Your task to perform on an android device: Open Youtube and go to the subscriptions tab Image 0: 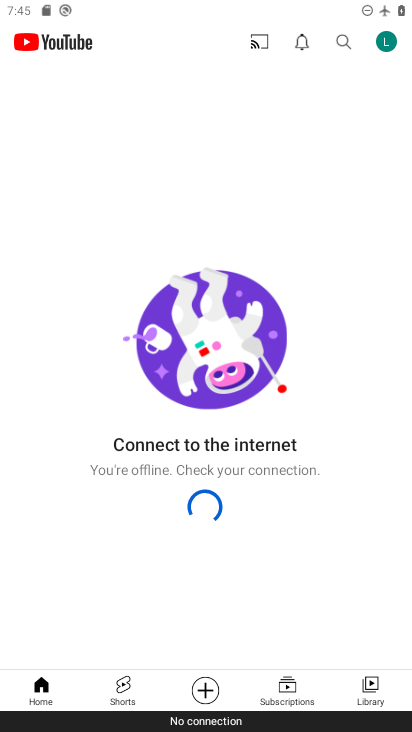
Step 0: click (288, 684)
Your task to perform on an android device: Open Youtube and go to the subscriptions tab Image 1: 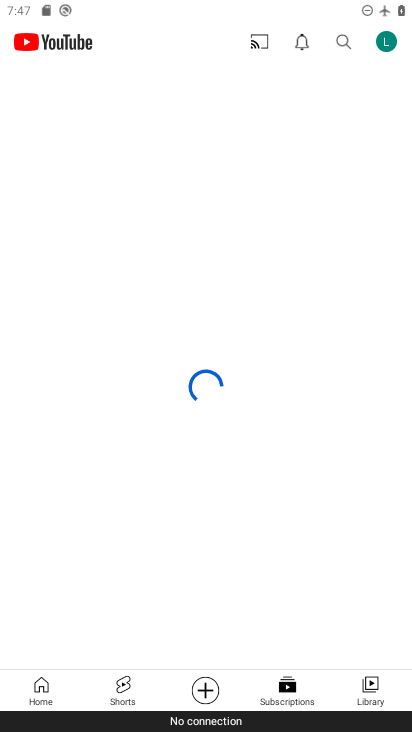
Step 1: task complete